Your task to perform on an android device: What's the weather like in Moscow? Image 0: 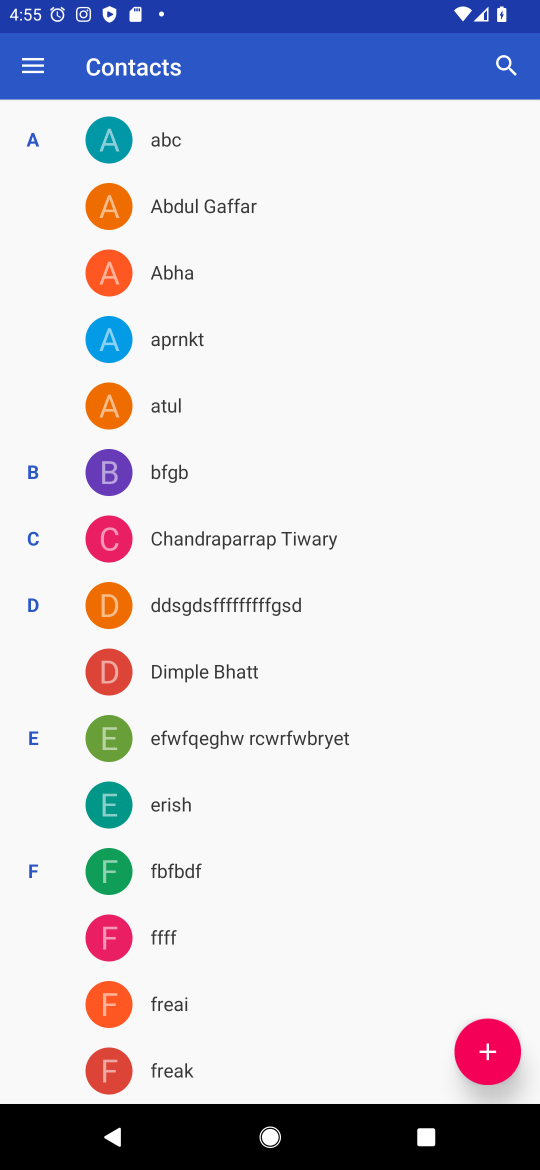
Step 0: press home button
Your task to perform on an android device: What's the weather like in Moscow? Image 1: 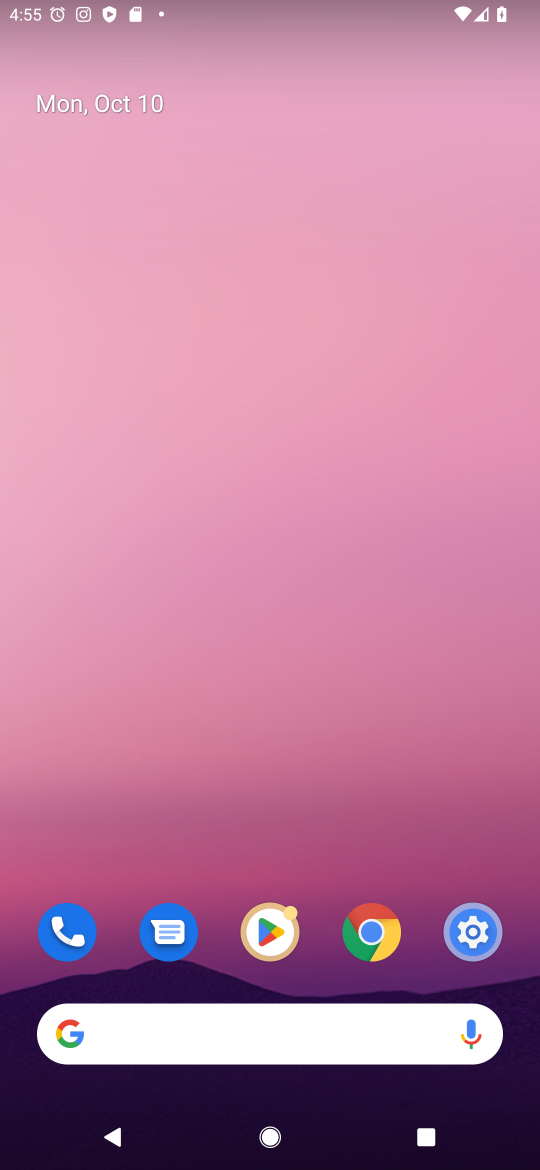
Step 1: click (315, 1025)
Your task to perform on an android device: What's the weather like in Moscow? Image 2: 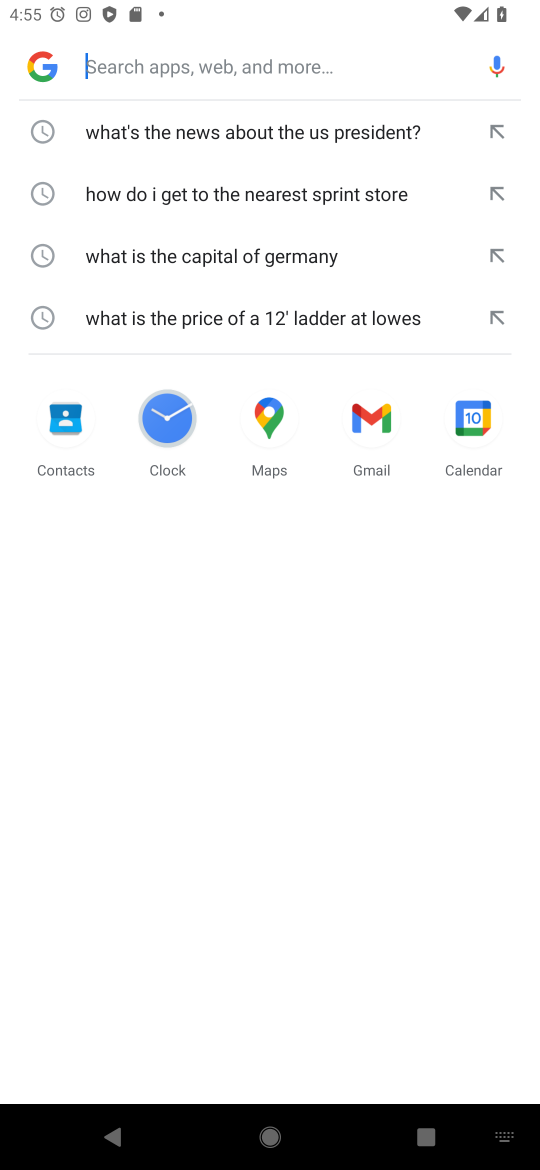
Step 2: type "What's the weather like in Moscow"
Your task to perform on an android device: What's the weather like in Moscow? Image 3: 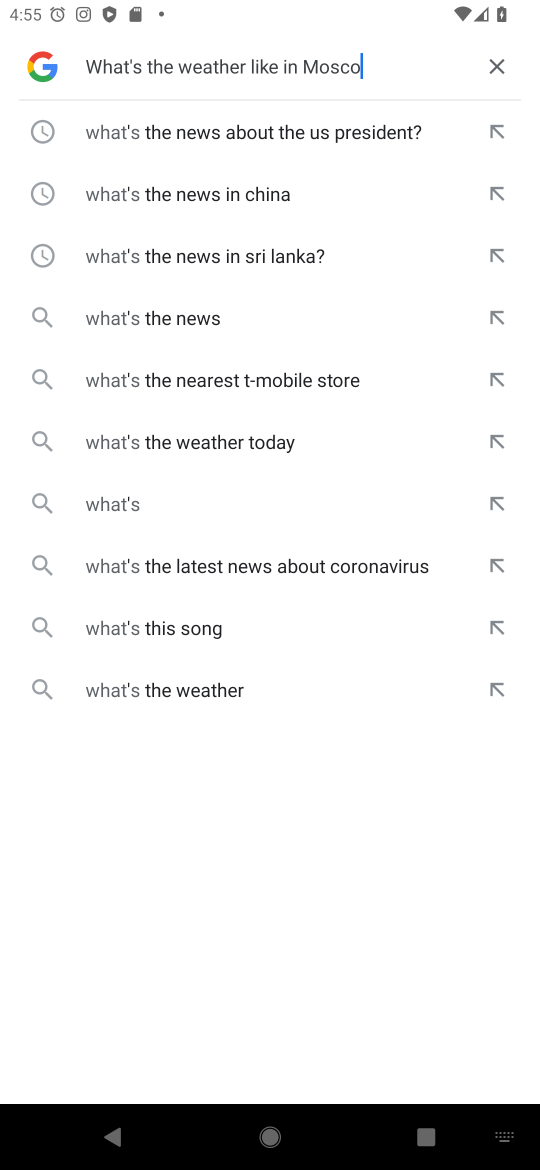
Step 3: press enter
Your task to perform on an android device: What's the weather like in Moscow? Image 4: 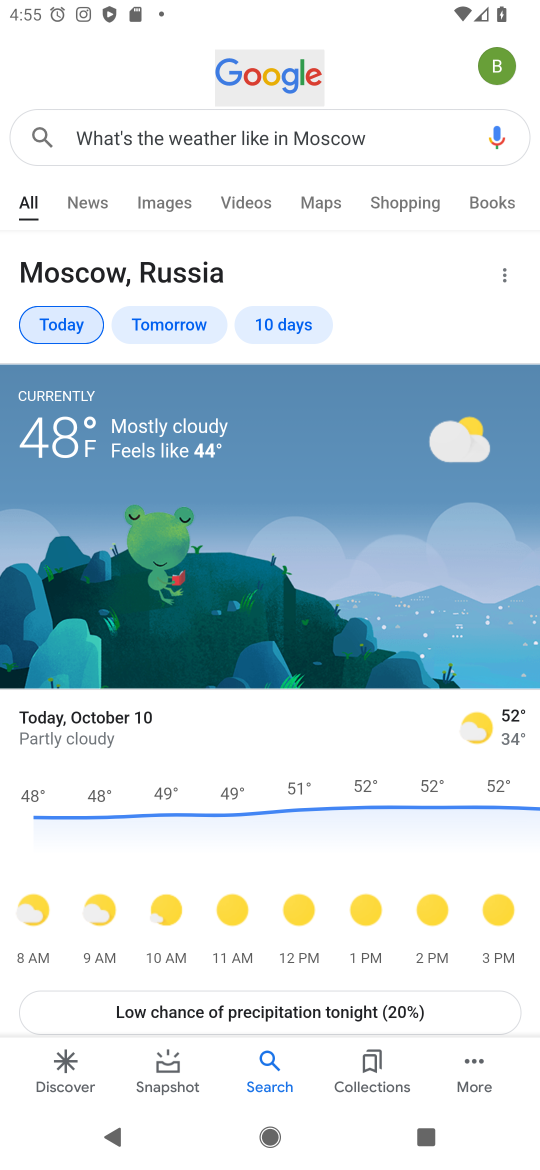
Step 4: task complete